Your task to perform on an android device: Play the new Katy Perry video on YouTube Image 0: 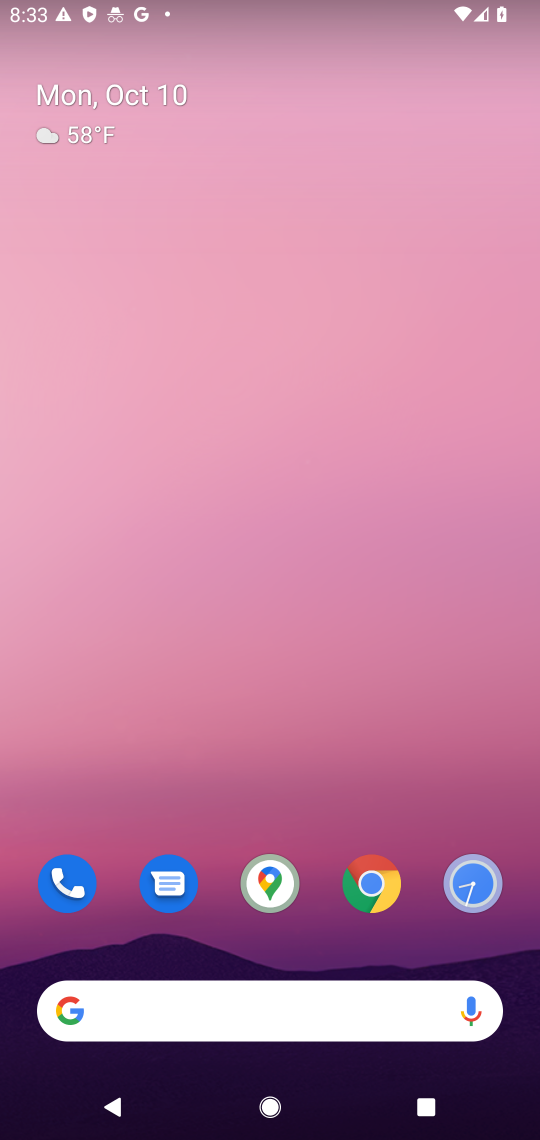
Step 0: drag from (283, 986) to (310, 356)
Your task to perform on an android device: Play the new Katy Perry video on YouTube Image 1: 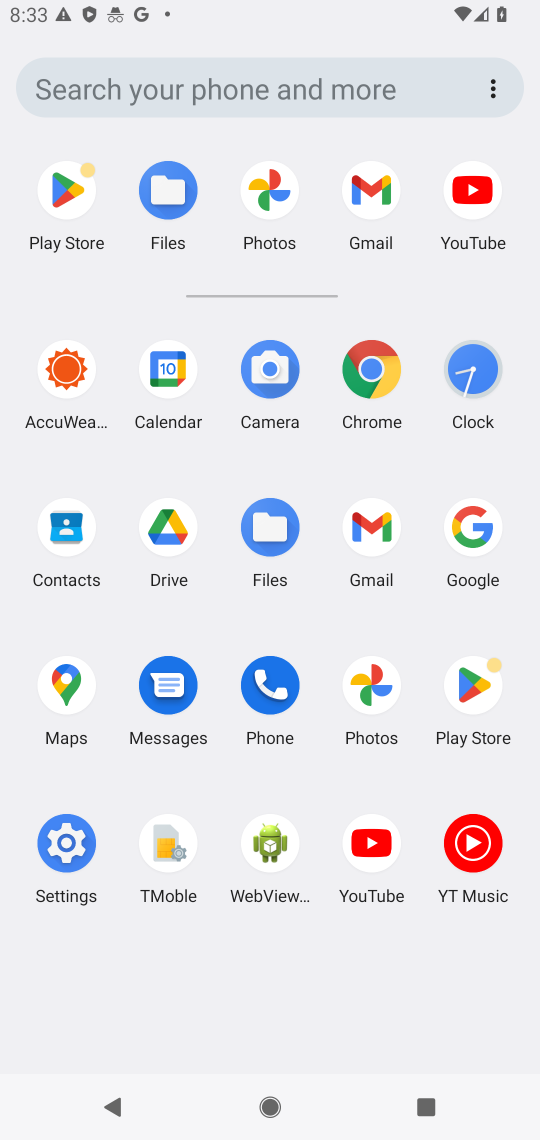
Step 1: click (386, 861)
Your task to perform on an android device: Play the new Katy Perry video on YouTube Image 2: 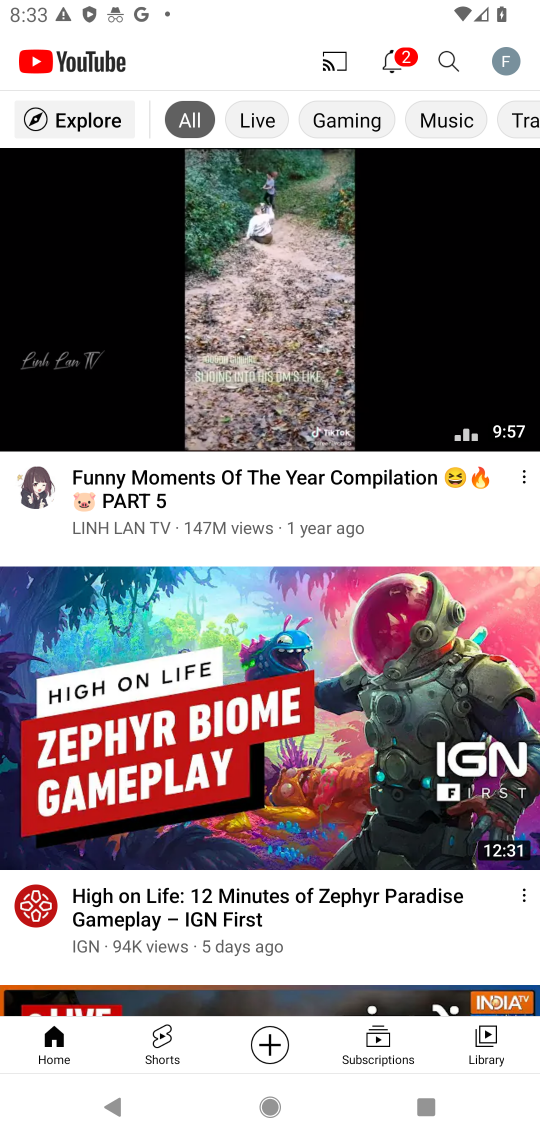
Step 2: click (453, 70)
Your task to perform on an android device: Play the new Katy Perry video on YouTube Image 3: 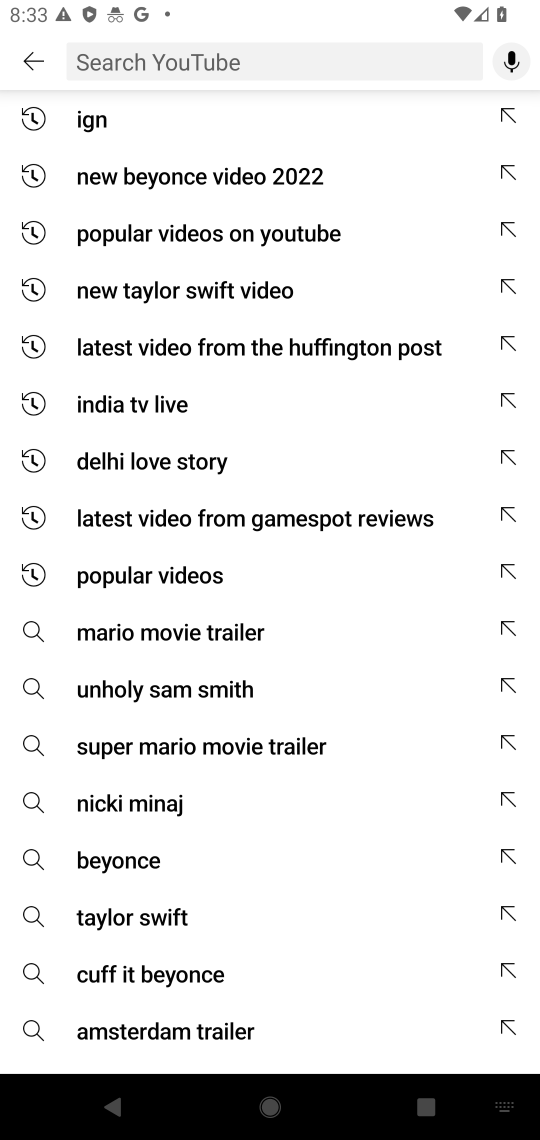
Step 3: type "new Katy Perry video"
Your task to perform on an android device: Play the new Katy Perry video on YouTube Image 4: 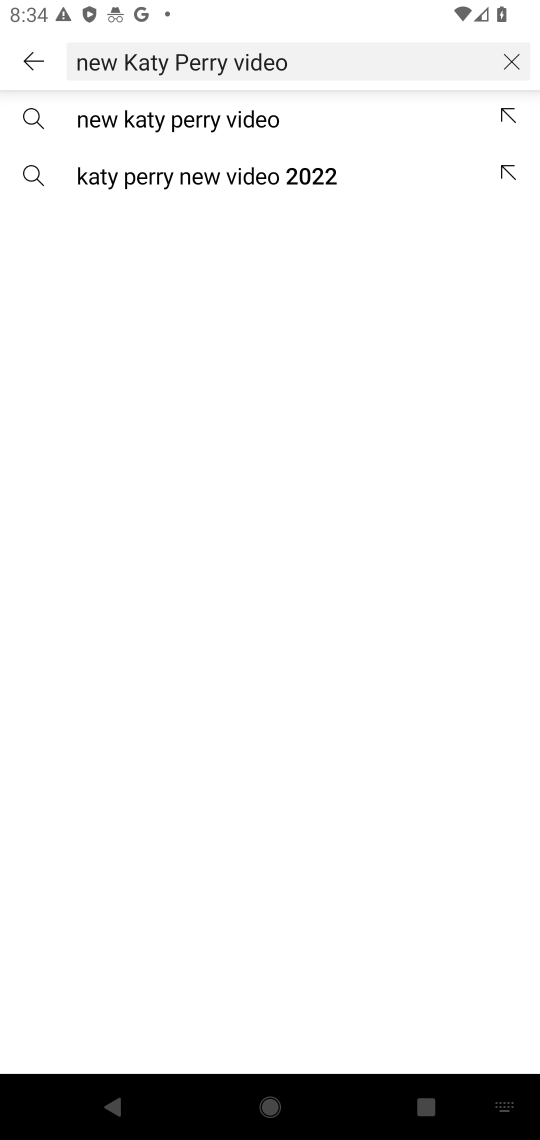
Step 4: click (315, 100)
Your task to perform on an android device: Play the new Katy Perry video on YouTube Image 5: 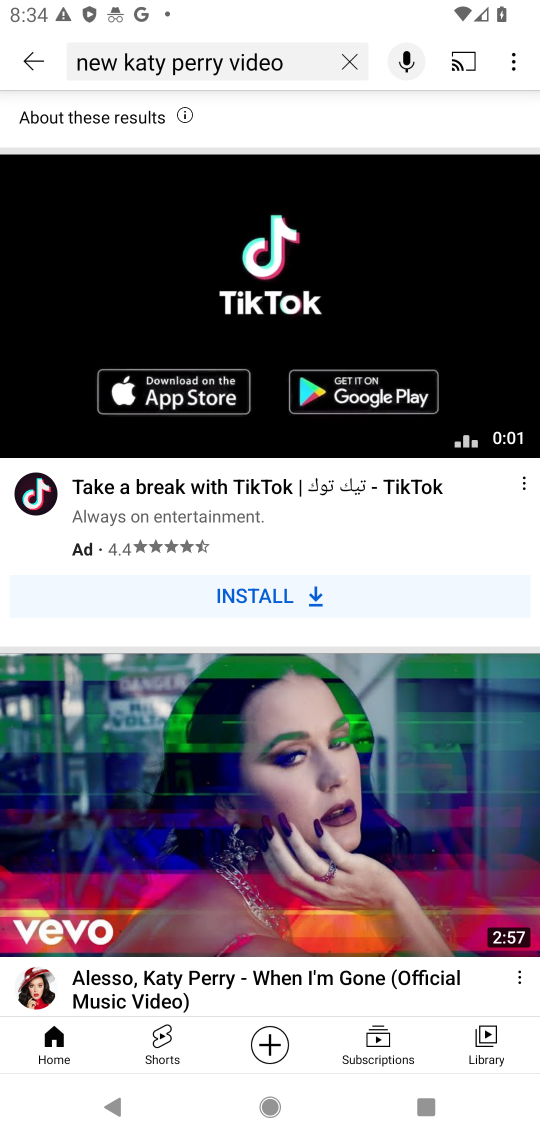
Step 5: task complete